Your task to perform on an android device: empty trash in the gmail app Image 0: 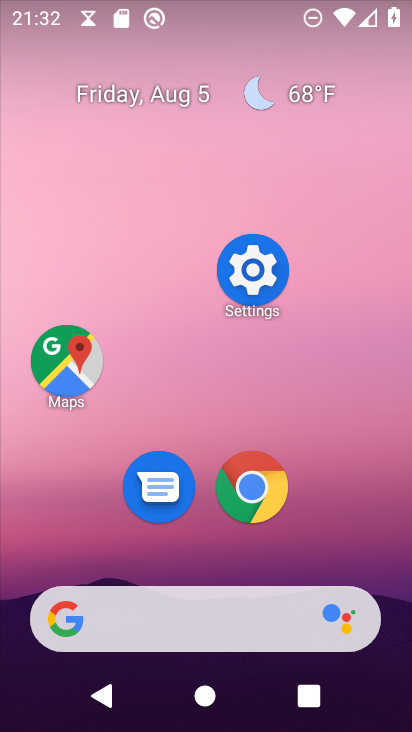
Step 0: press home button
Your task to perform on an android device: empty trash in the gmail app Image 1: 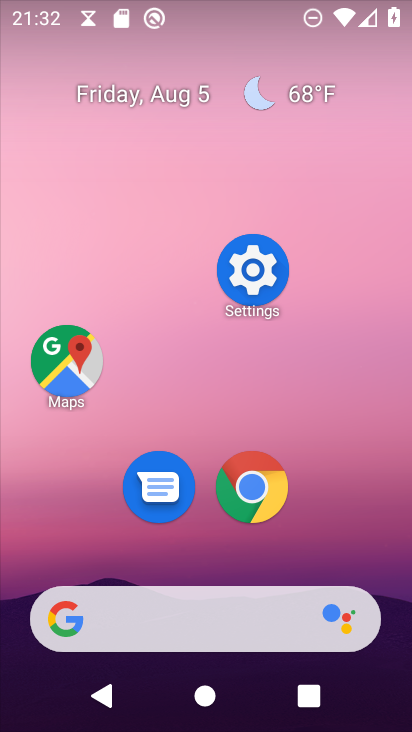
Step 1: drag from (241, 613) to (289, 46)
Your task to perform on an android device: empty trash in the gmail app Image 2: 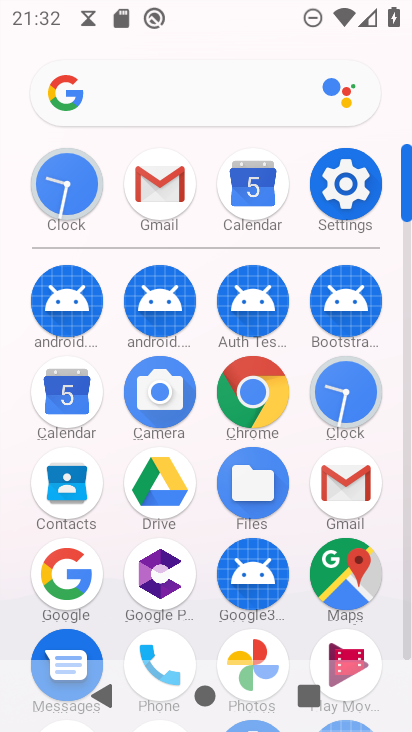
Step 2: click (163, 196)
Your task to perform on an android device: empty trash in the gmail app Image 3: 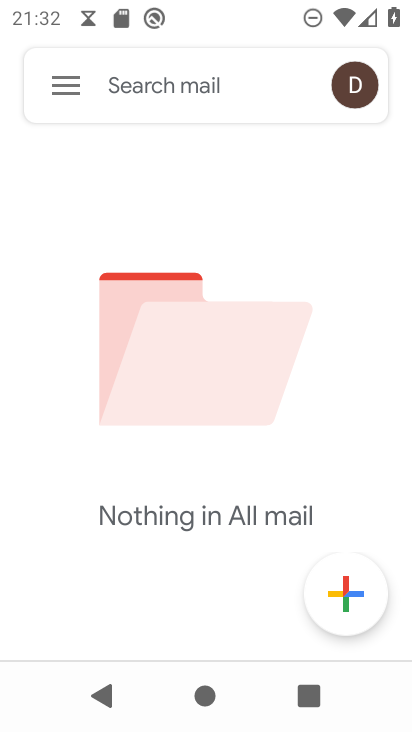
Step 3: click (69, 89)
Your task to perform on an android device: empty trash in the gmail app Image 4: 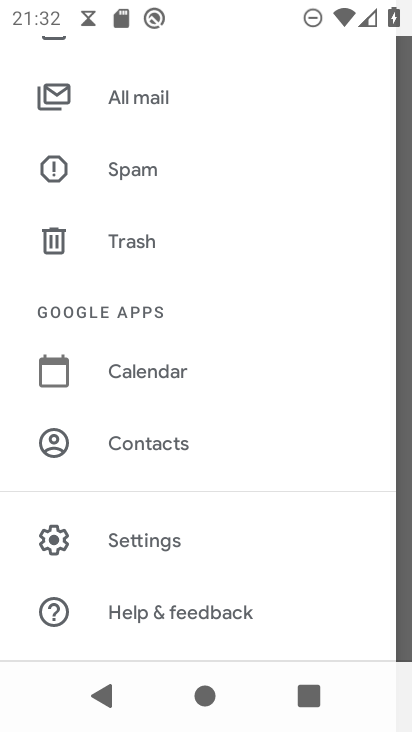
Step 4: click (131, 236)
Your task to perform on an android device: empty trash in the gmail app Image 5: 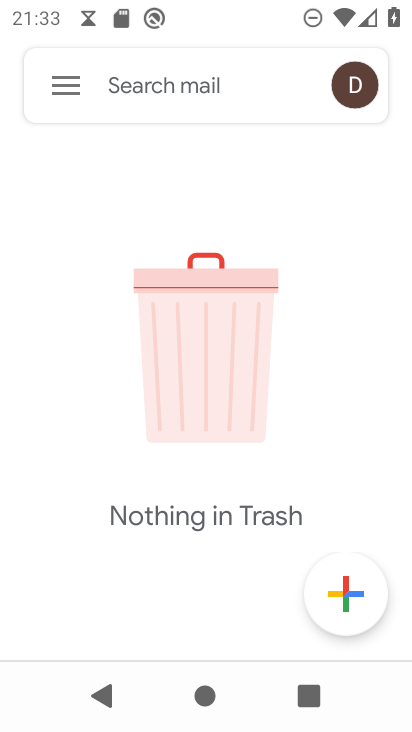
Step 5: task complete